Your task to perform on an android device: Open settings Image 0: 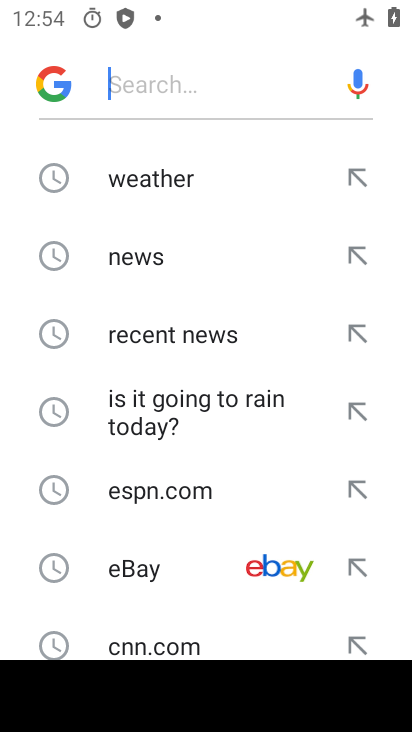
Step 0: press home button
Your task to perform on an android device: Open settings Image 1: 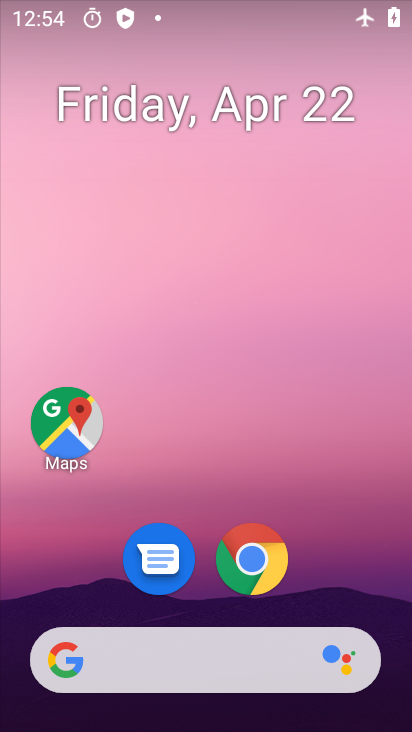
Step 1: drag from (372, 563) to (362, 100)
Your task to perform on an android device: Open settings Image 2: 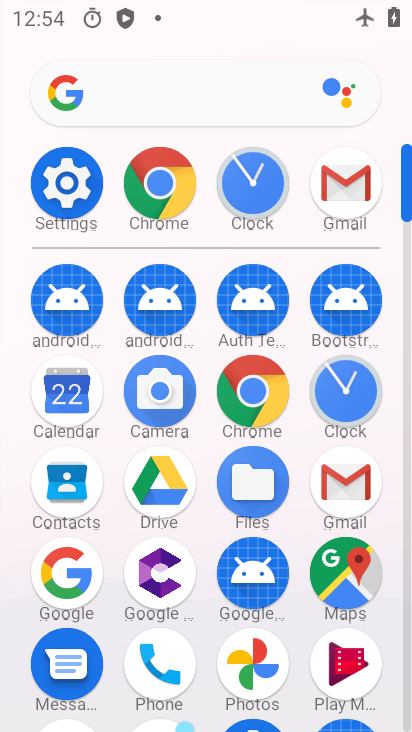
Step 2: click (55, 195)
Your task to perform on an android device: Open settings Image 3: 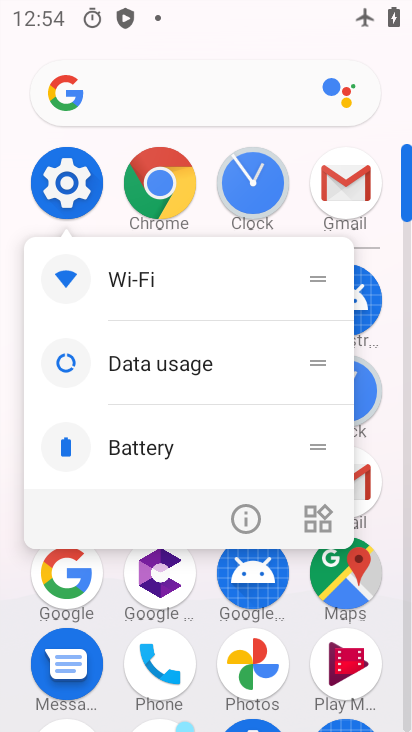
Step 3: click (79, 204)
Your task to perform on an android device: Open settings Image 4: 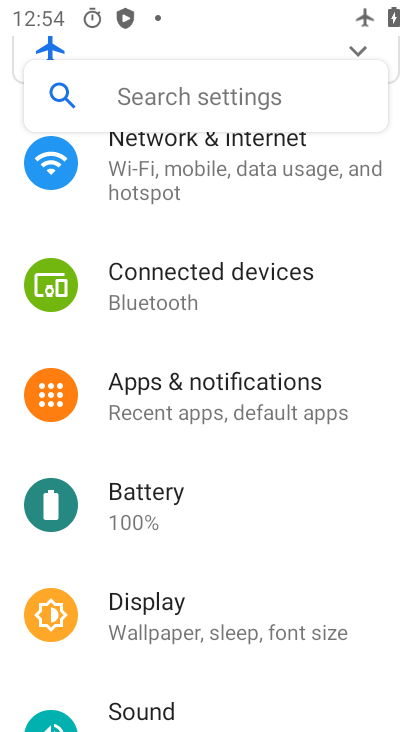
Step 4: task complete